Your task to perform on an android device: manage bookmarks in the chrome app Image 0: 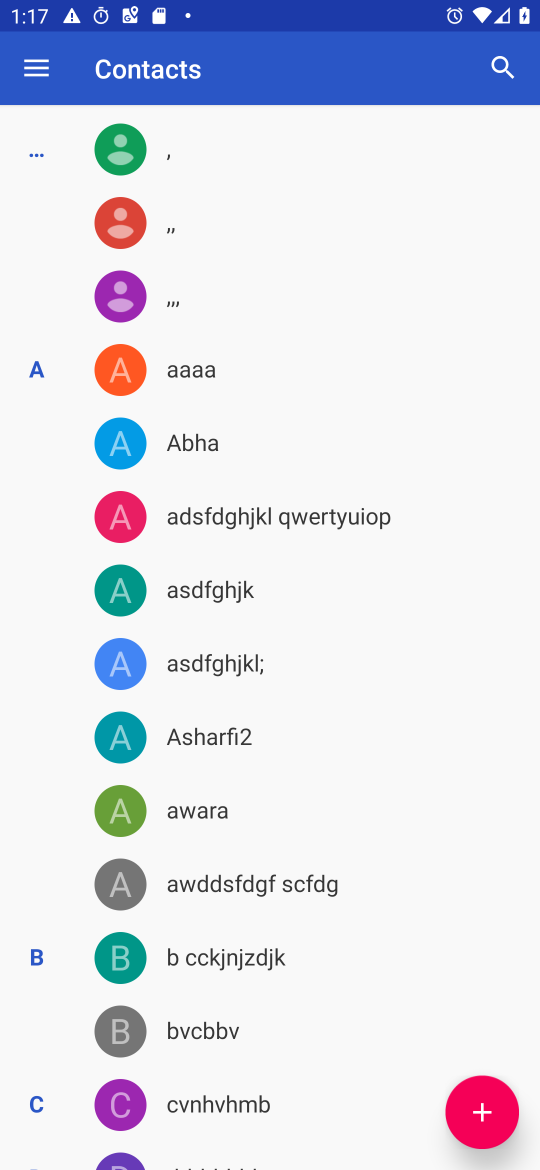
Step 0: press home button
Your task to perform on an android device: manage bookmarks in the chrome app Image 1: 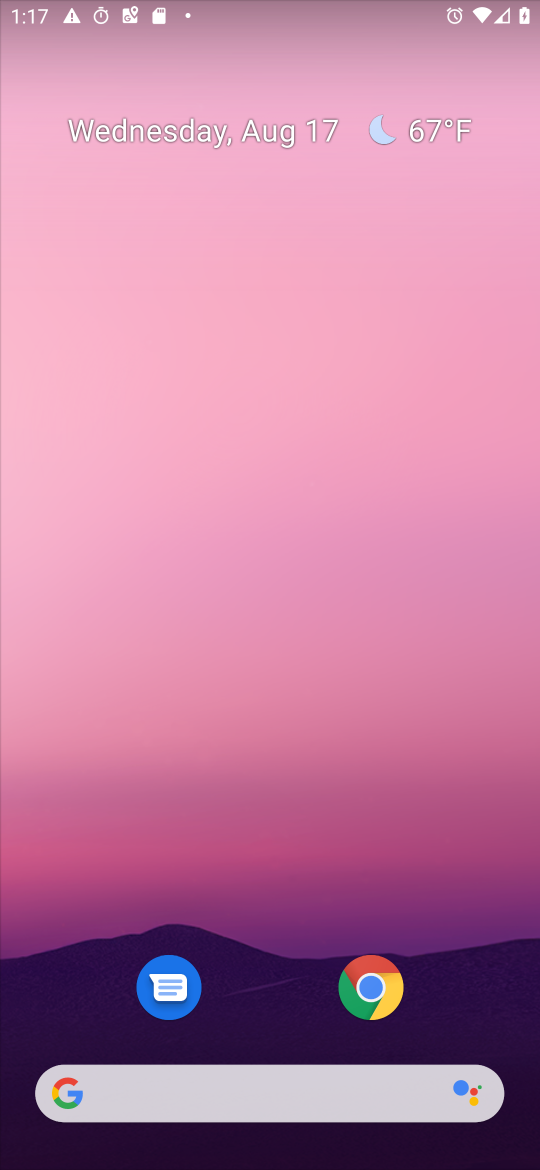
Step 1: click (360, 977)
Your task to perform on an android device: manage bookmarks in the chrome app Image 2: 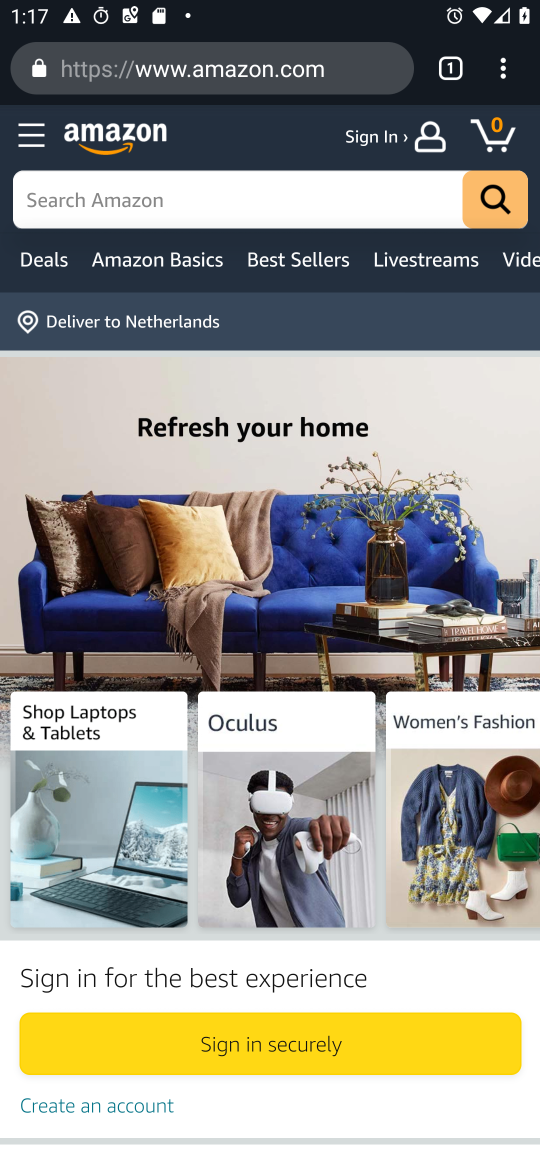
Step 2: click (502, 71)
Your task to perform on an android device: manage bookmarks in the chrome app Image 3: 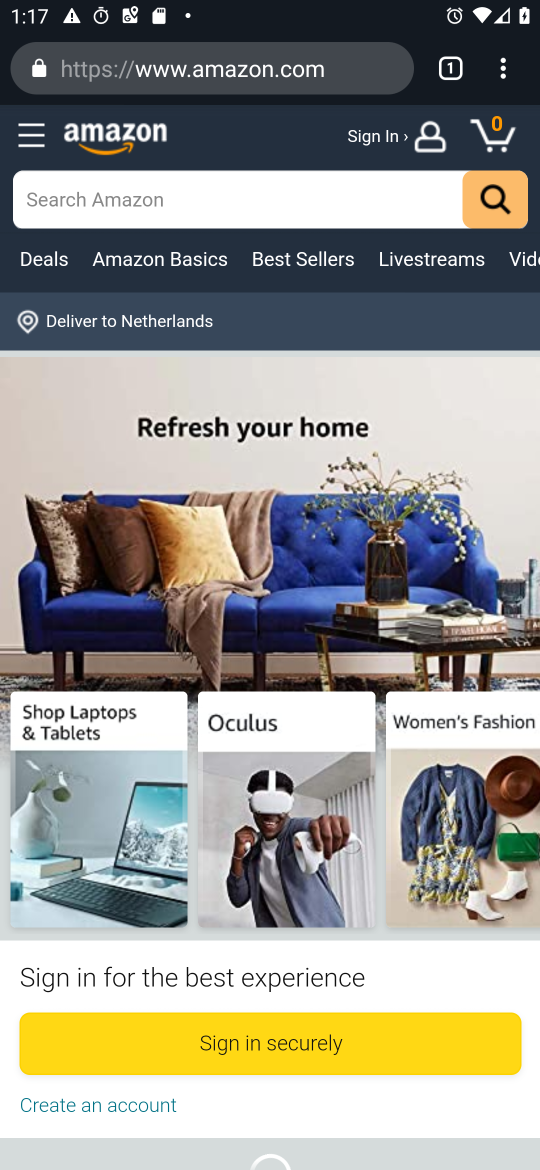
Step 3: click (509, 69)
Your task to perform on an android device: manage bookmarks in the chrome app Image 4: 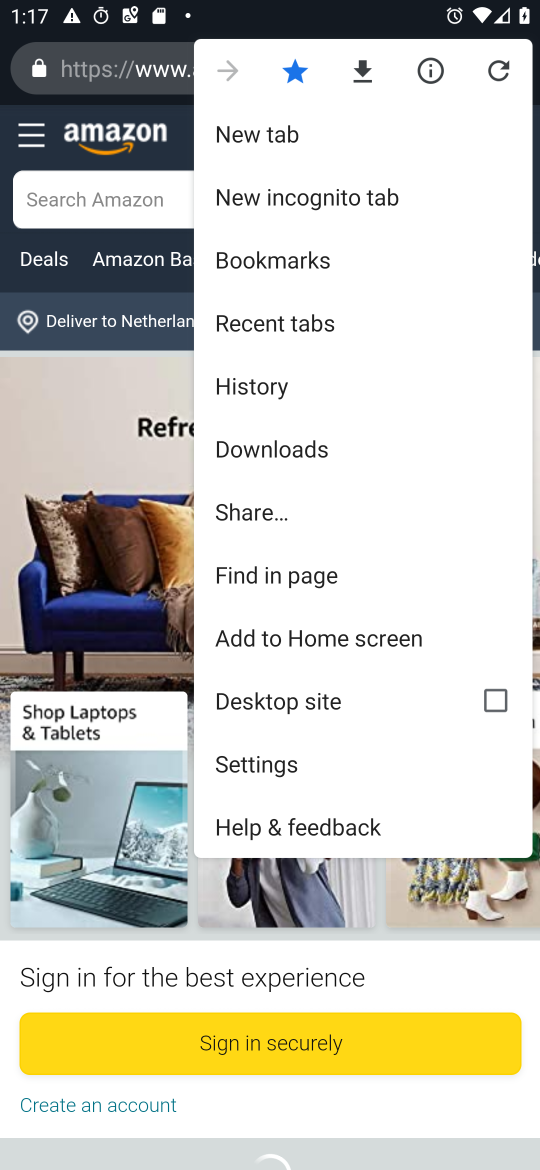
Step 4: click (291, 262)
Your task to perform on an android device: manage bookmarks in the chrome app Image 5: 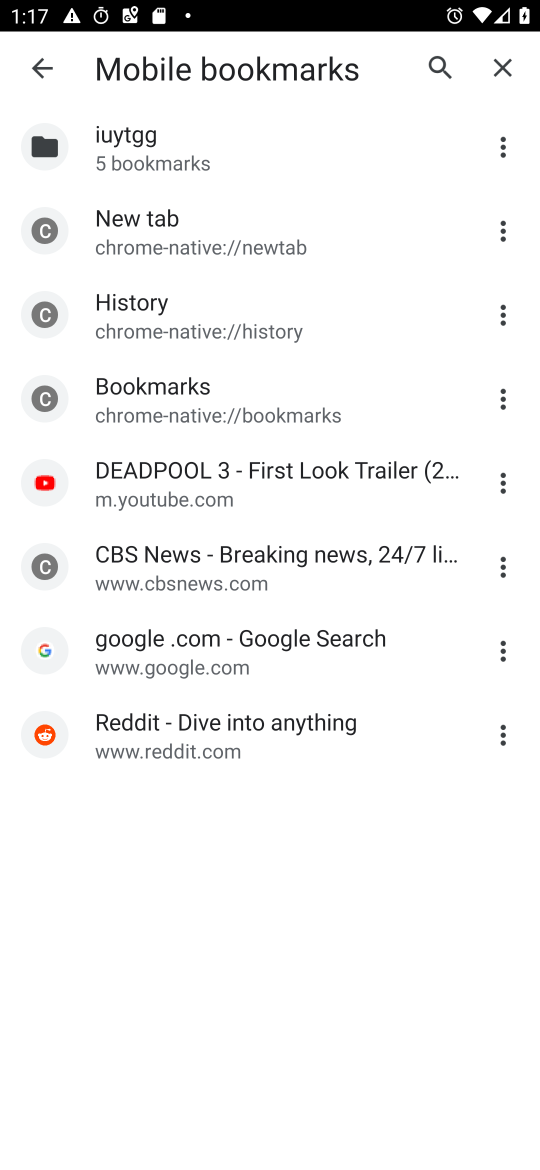
Step 5: task complete